Your task to perform on an android device: Open Reddit.com Image 0: 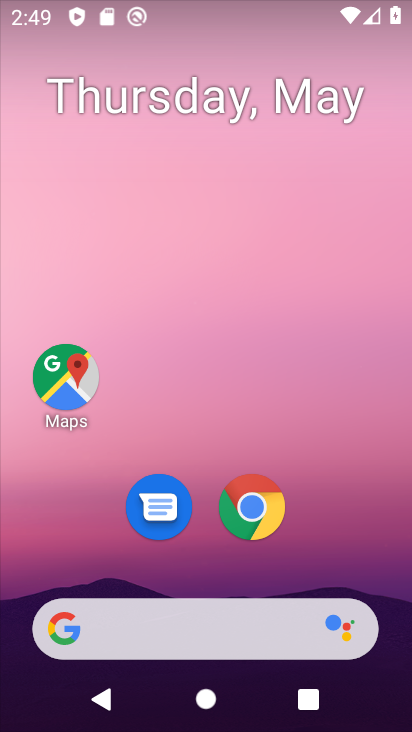
Step 0: click (275, 498)
Your task to perform on an android device: Open Reddit.com Image 1: 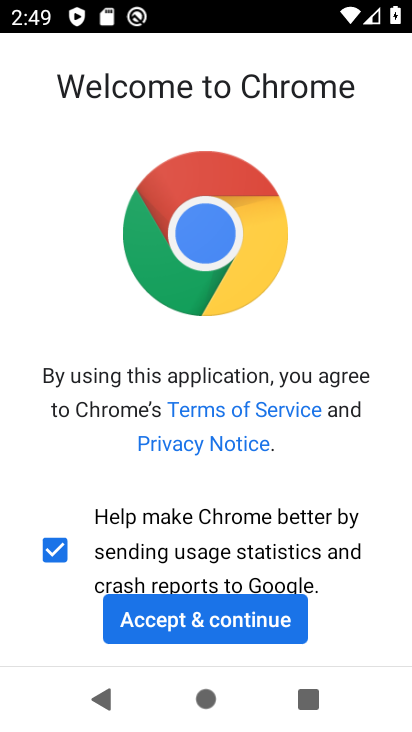
Step 1: click (260, 614)
Your task to perform on an android device: Open Reddit.com Image 2: 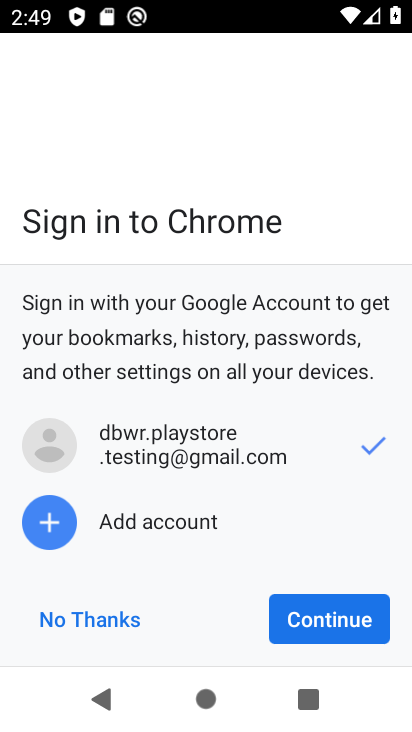
Step 2: click (338, 619)
Your task to perform on an android device: Open Reddit.com Image 3: 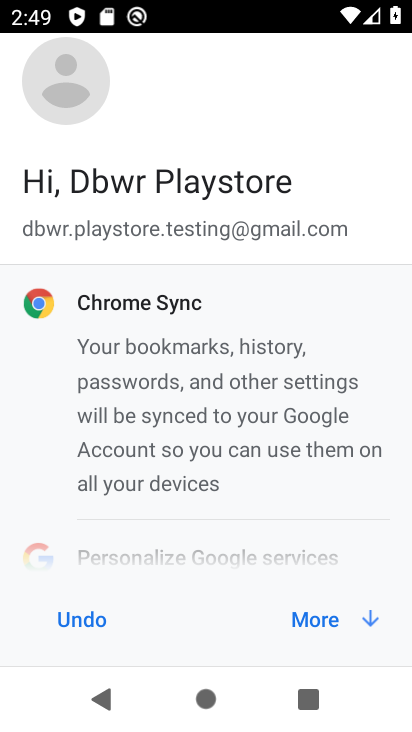
Step 3: click (340, 623)
Your task to perform on an android device: Open Reddit.com Image 4: 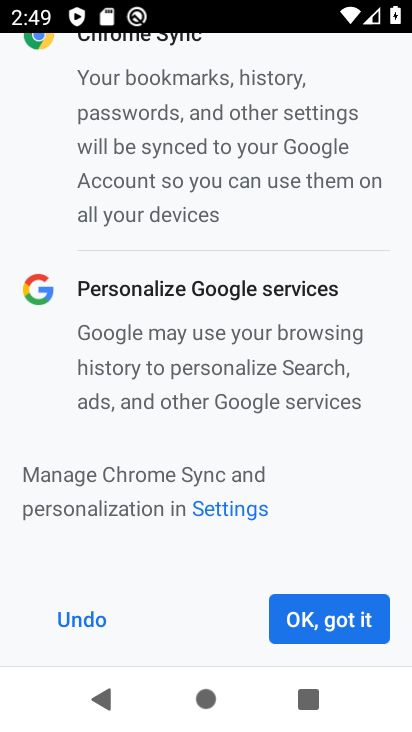
Step 4: click (340, 623)
Your task to perform on an android device: Open Reddit.com Image 5: 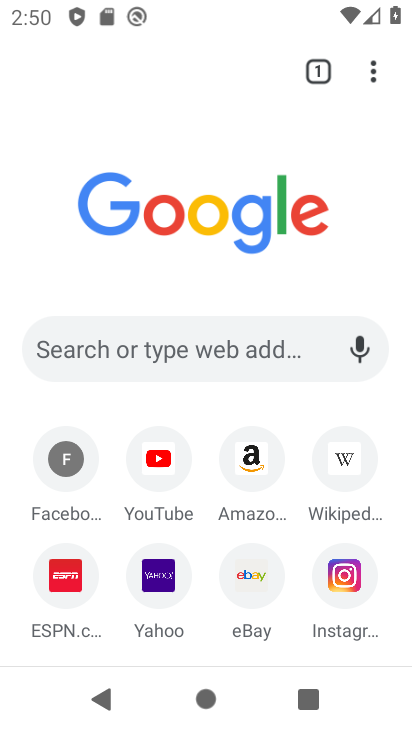
Step 5: click (291, 343)
Your task to perform on an android device: Open Reddit.com Image 6: 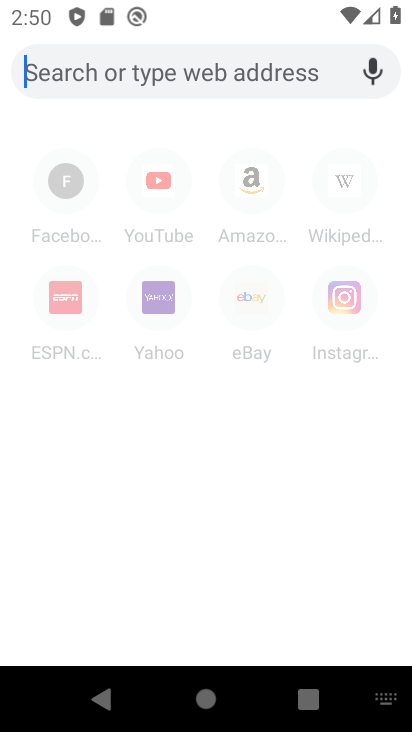
Step 6: type "Reddit.com"
Your task to perform on an android device: Open Reddit.com Image 7: 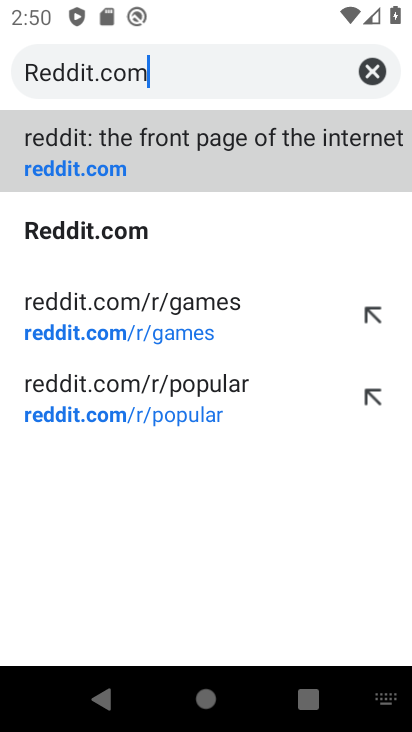
Step 7: click (97, 171)
Your task to perform on an android device: Open Reddit.com Image 8: 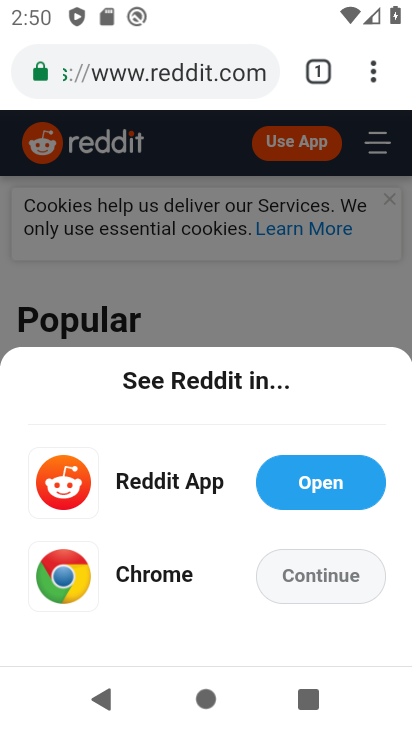
Step 8: click (342, 572)
Your task to perform on an android device: Open Reddit.com Image 9: 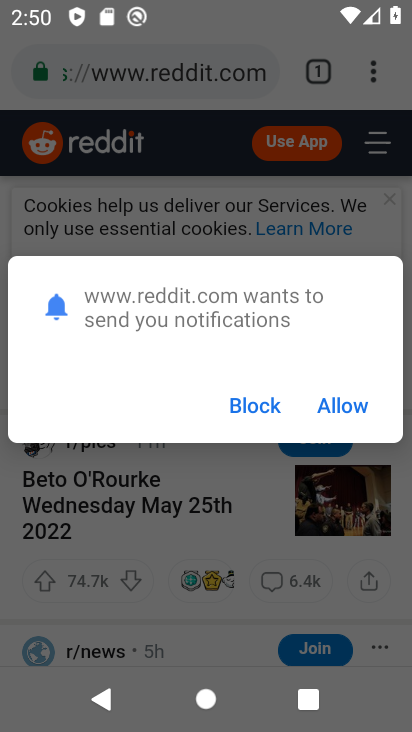
Step 9: task complete